Your task to perform on an android device: Add panasonic triple a to the cart on bestbuy Image 0: 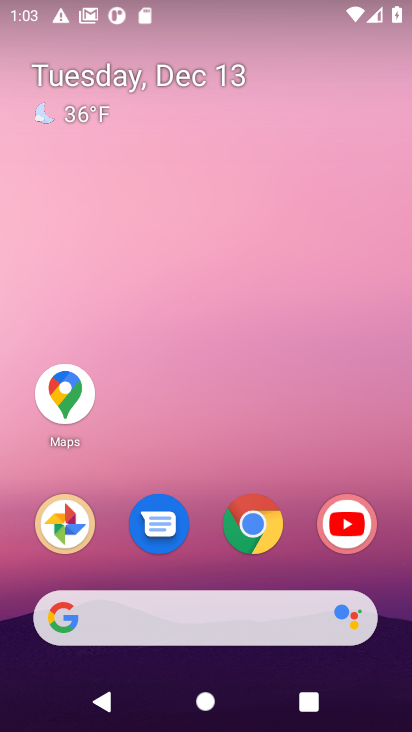
Step 0: click (253, 524)
Your task to perform on an android device: Add panasonic triple a to the cart on bestbuy Image 1: 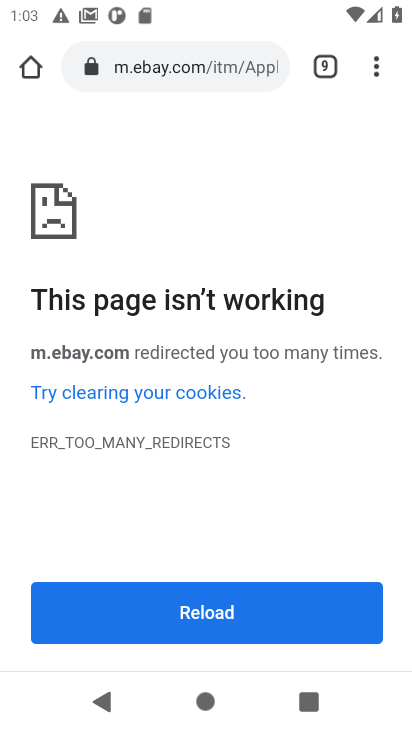
Step 1: click (163, 74)
Your task to perform on an android device: Add panasonic triple a to the cart on bestbuy Image 2: 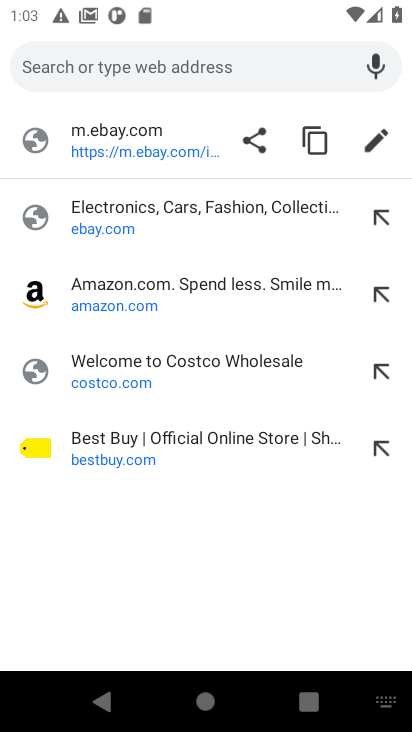
Step 2: click (100, 447)
Your task to perform on an android device: Add panasonic triple a to the cart on bestbuy Image 3: 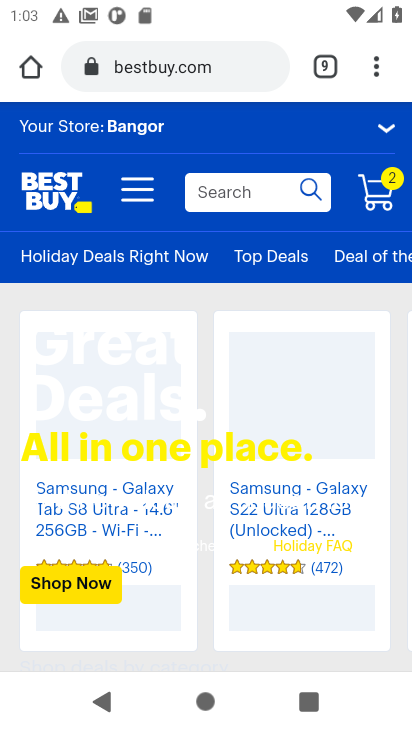
Step 3: click (212, 190)
Your task to perform on an android device: Add panasonic triple a to the cart on bestbuy Image 4: 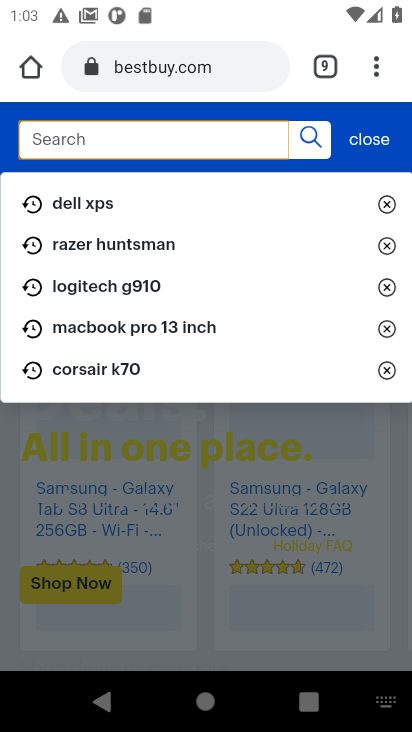
Step 4: type "panasonic triple a "
Your task to perform on an android device: Add panasonic triple a to the cart on bestbuy Image 5: 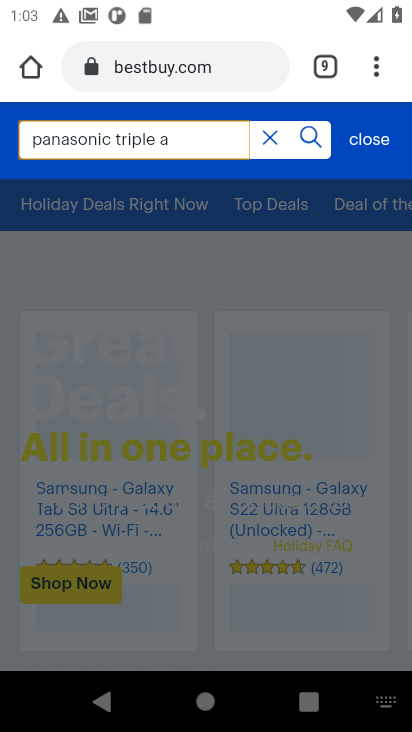
Step 5: click (305, 138)
Your task to perform on an android device: Add panasonic triple a to the cart on bestbuy Image 6: 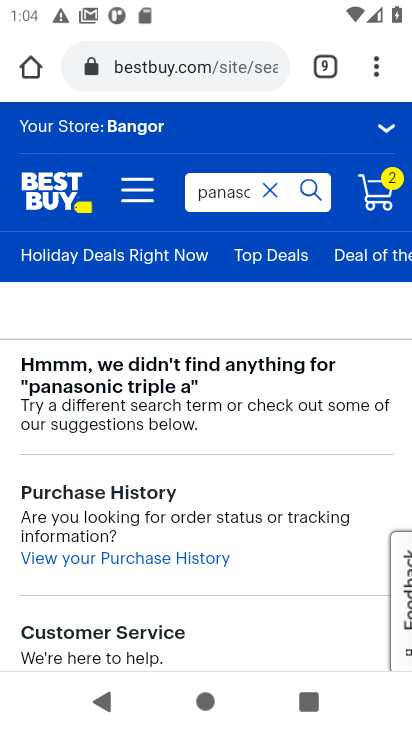
Step 6: task complete